Your task to perform on an android device: turn off airplane mode Image 0: 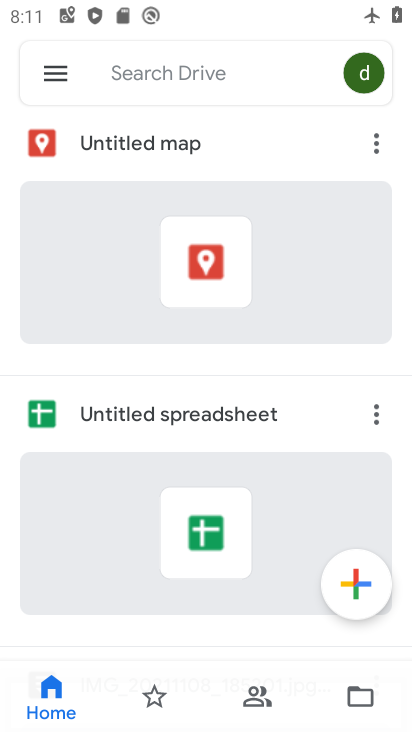
Step 0: press home button
Your task to perform on an android device: turn off airplane mode Image 1: 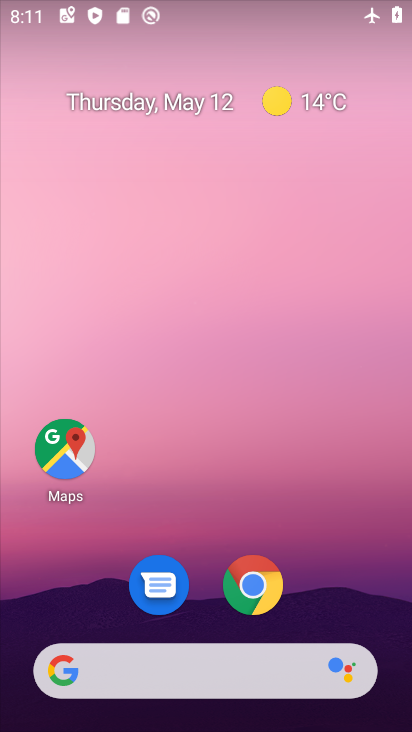
Step 1: drag from (244, 503) to (227, 21)
Your task to perform on an android device: turn off airplane mode Image 2: 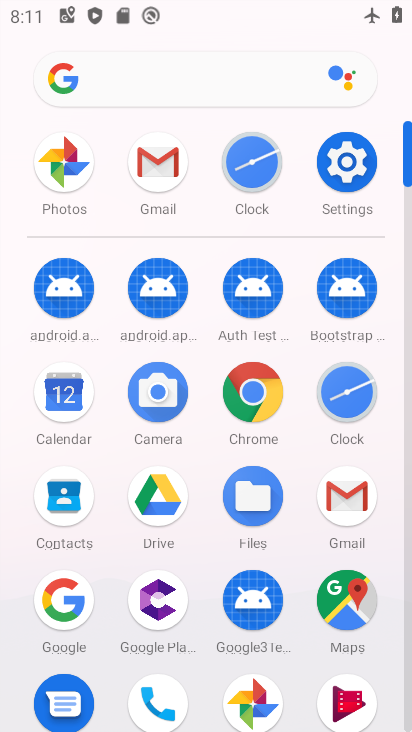
Step 2: click (352, 162)
Your task to perform on an android device: turn off airplane mode Image 3: 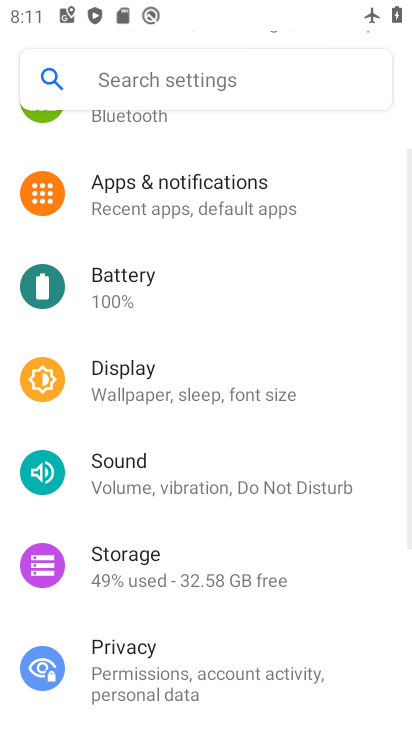
Step 3: drag from (235, 239) to (236, 562)
Your task to perform on an android device: turn off airplane mode Image 4: 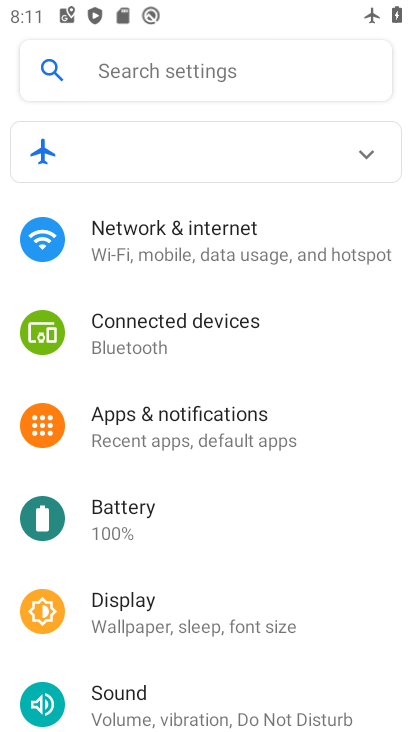
Step 4: click (224, 244)
Your task to perform on an android device: turn off airplane mode Image 5: 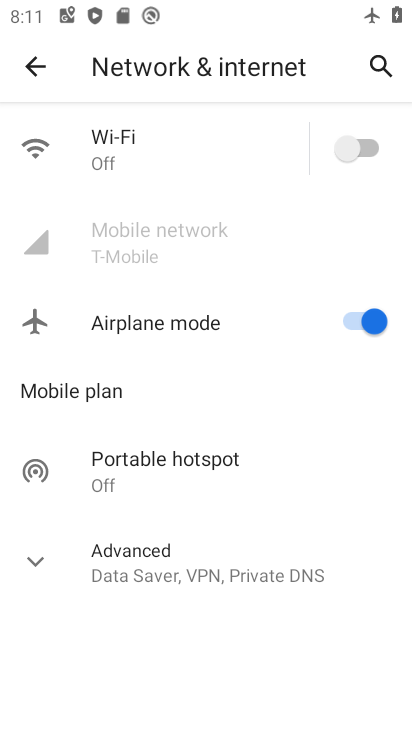
Step 5: click (359, 317)
Your task to perform on an android device: turn off airplane mode Image 6: 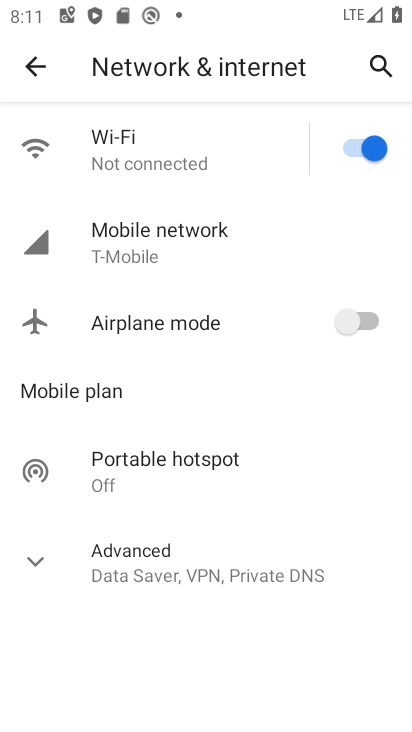
Step 6: task complete